Your task to perform on an android device: turn off notifications settings in the gmail app Image 0: 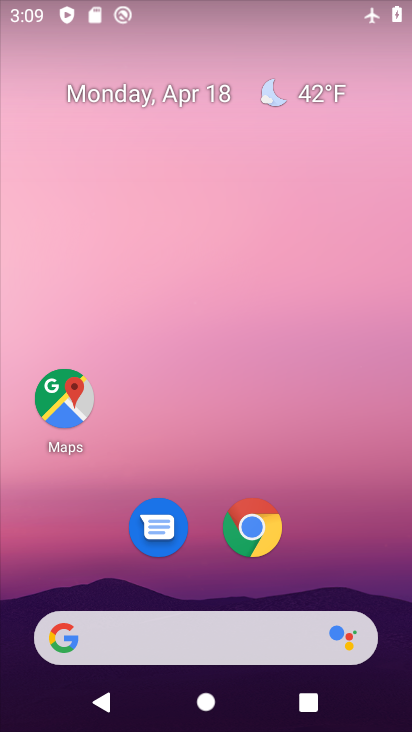
Step 0: drag from (267, 598) to (281, 44)
Your task to perform on an android device: turn off notifications settings in the gmail app Image 1: 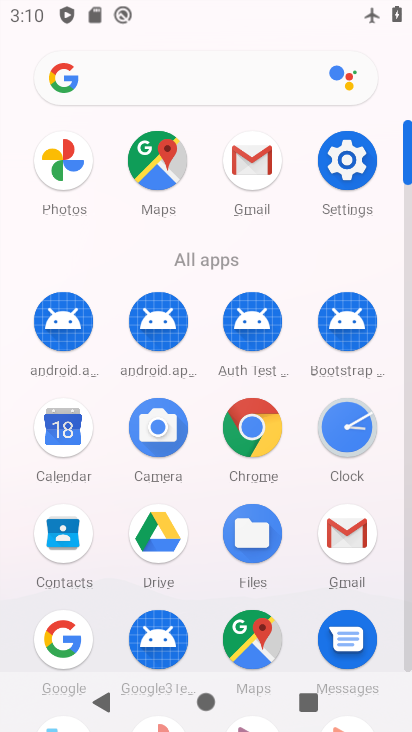
Step 1: click (249, 165)
Your task to perform on an android device: turn off notifications settings in the gmail app Image 2: 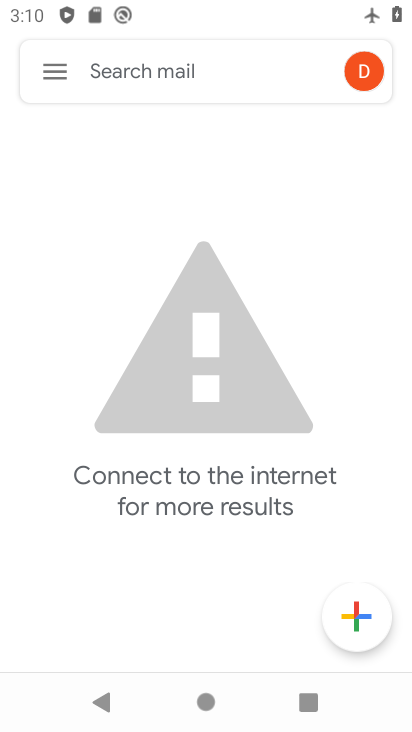
Step 2: click (48, 69)
Your task to perform on an android device: turn off notifications settings in the gmail app Image 3: 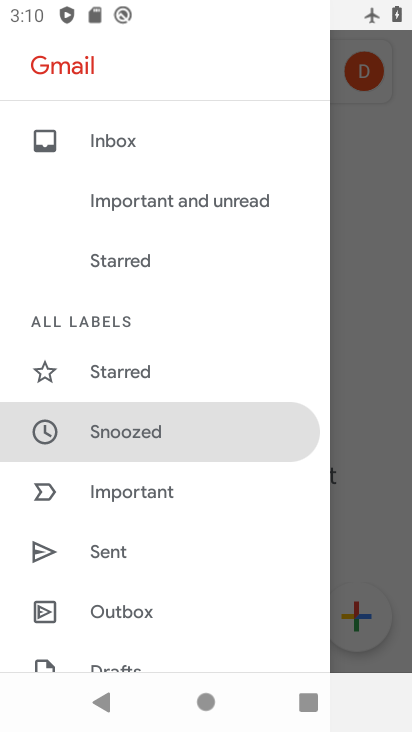
Step 3: drag from (114, 598) to (134, 130)
Your task to perform on an android device: turn off notifications settings in the gmail app Image 4: 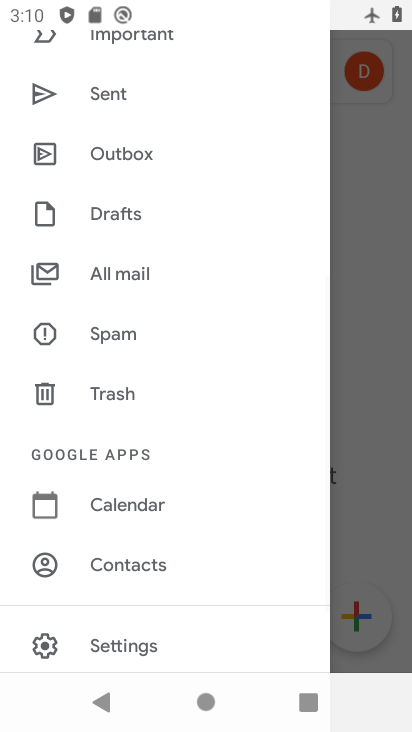
Step 4: drag from (156, 565) to (219, 153)
Your task to perform on an android device: turn off notifications settings in the gmail app Image 5: 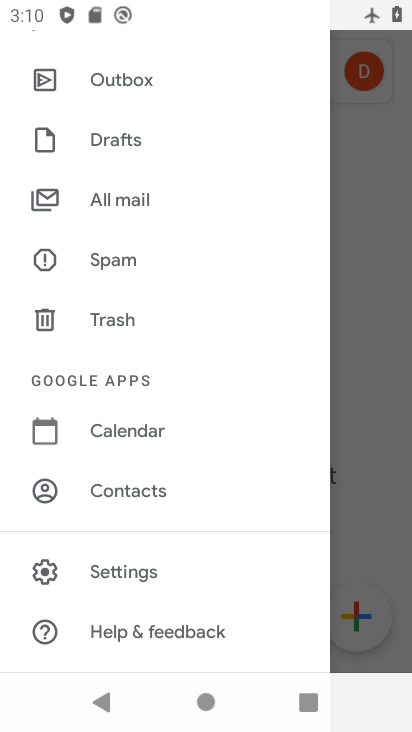
Step 5: click (124, 572)
Your task to perform on an android device: turn off notifications settings in the gmail app Image 6: 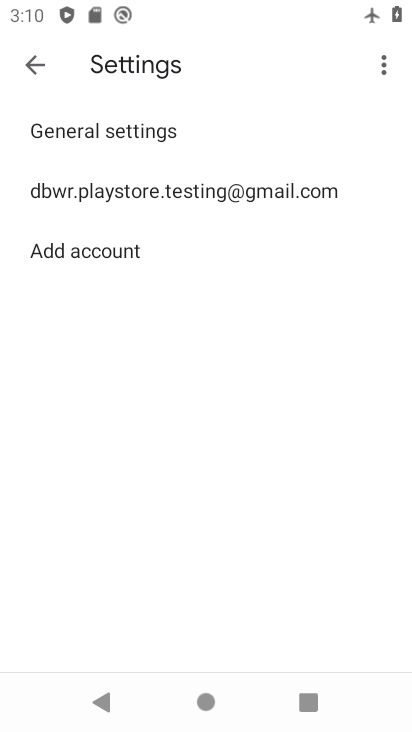
Step 6: click (178, 192)
Your task to perform on an android device: turn off notifications settings in the gmail app Image 7: 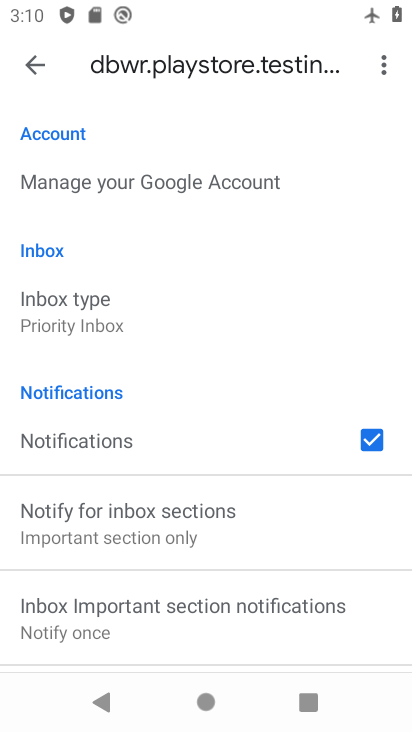
Step 7: drag from (130, 605) to (150, 343)
Your task to perform on an android device: turn off notifications settings in the gmail app Image 8: 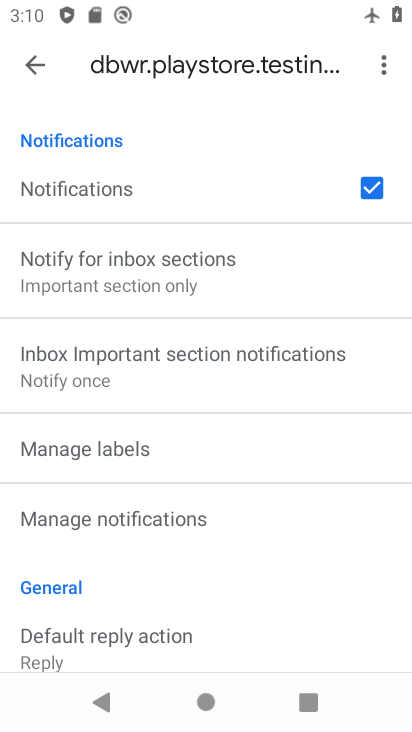
Step 8: click (106, 516)
Your task to perform on an android device: turn off notifications settings in the gmail app Image 9: 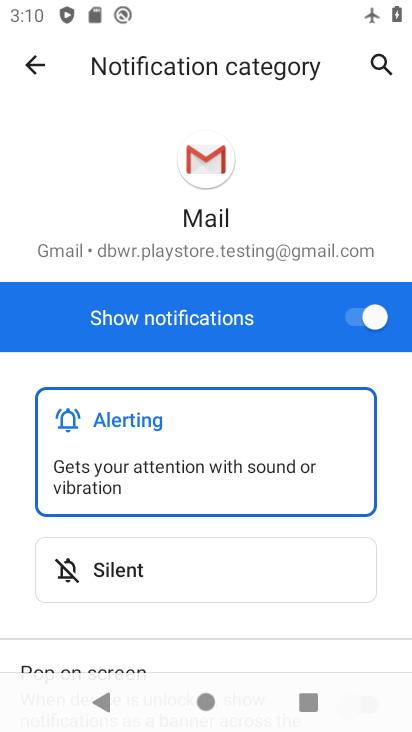
Step 9: click (377, 315)
Your task to perform on an android device: turn off notifications settings in the gmail app Image 10: 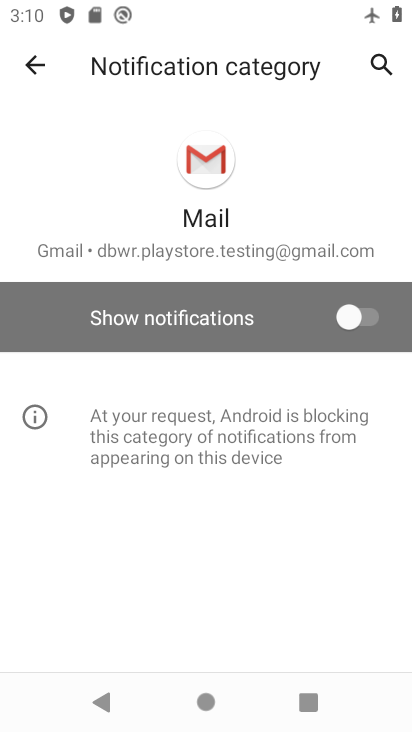
Step 10: task complete